Your task to perform on an android device: see sites visited before in the chrome app Image 0: 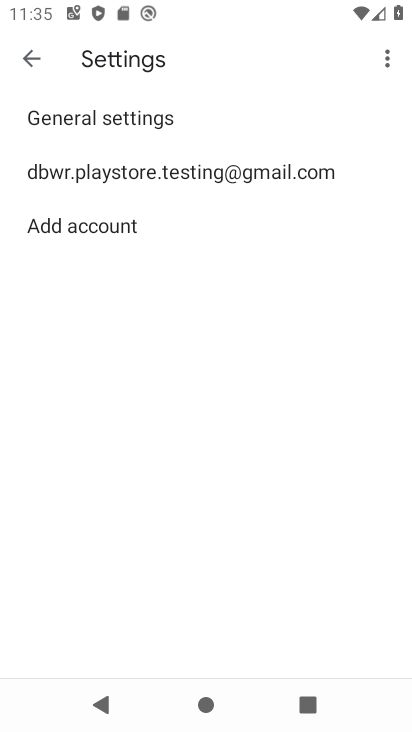
Step 0: press home button
Your task to perform on an android device: see sites visited before in the chrome app Image 1: 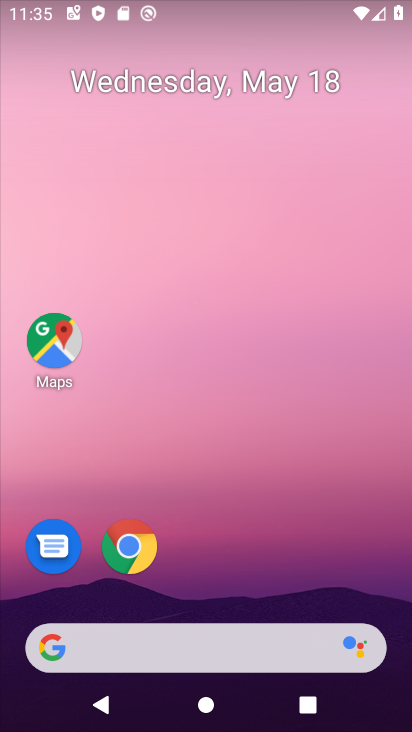
Step 1: click (128, 541)
Your task to perform on an android device: see sites visited before in the chrome app Image 2: 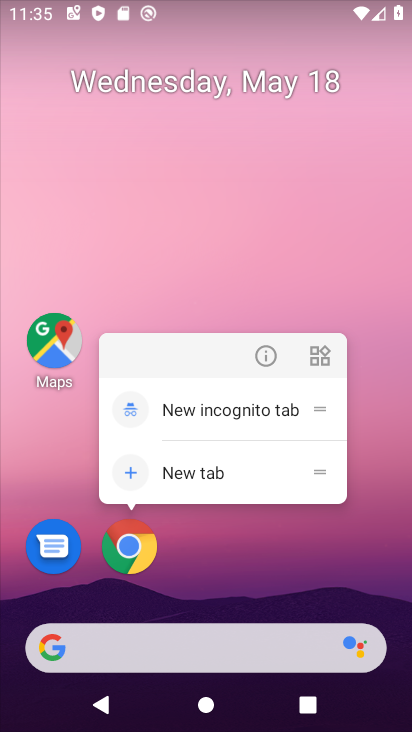
Step 2: click (132, 543)
Your task to perform on an android device: see sites visited before in the chrome app Image 3: 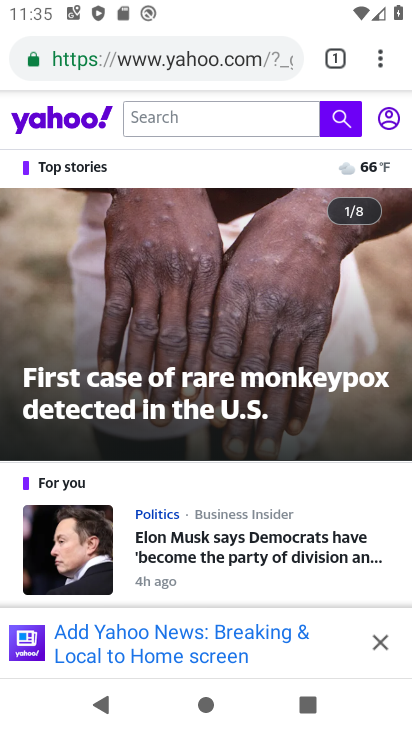
Step 3: click (373, 60)
Your task to perform on an android device: see sites visited before in the chrome app Image 4: 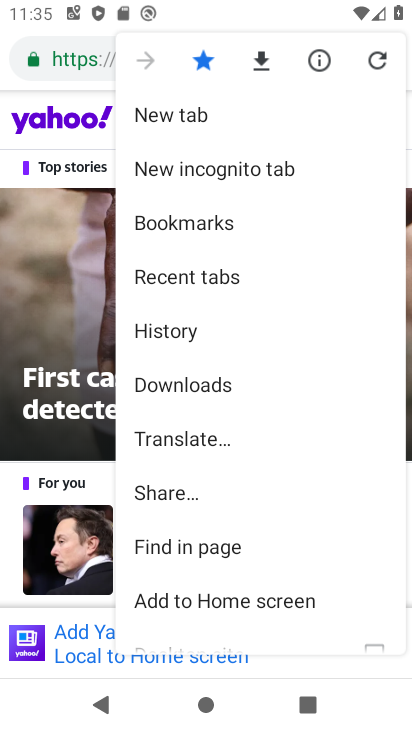
Step 4: click (194, 324)
Your task to perform on an android device: see sites visited before in the chrome app Image 5: 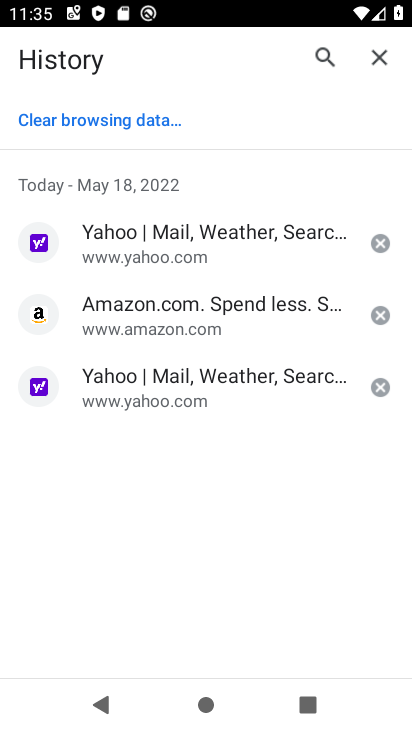
Step 5: task complete